Your task to perform on an android device: Open Chrome and go to settings Image 0: 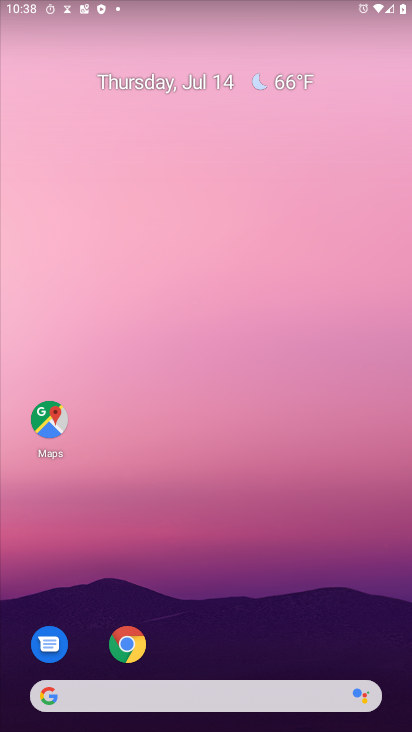
Step 0: press back button
Your task to perform on an android device: Open Chrome and go to settings Image 1: 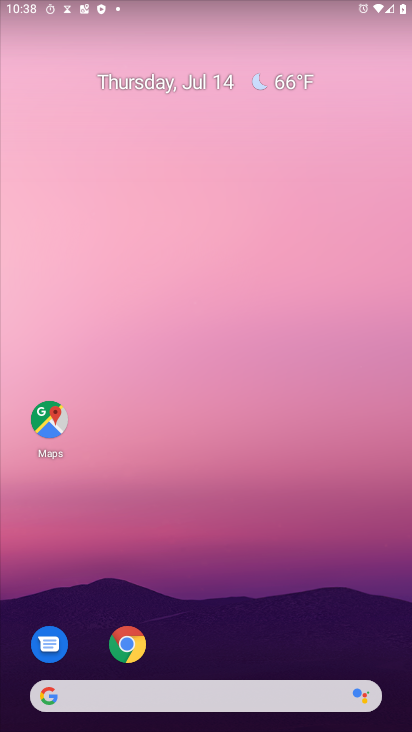
Step 1: drag from (240, 697) to (92, 57)
Your task to perform on an android device: Open Chrome and go to settings Image 2: 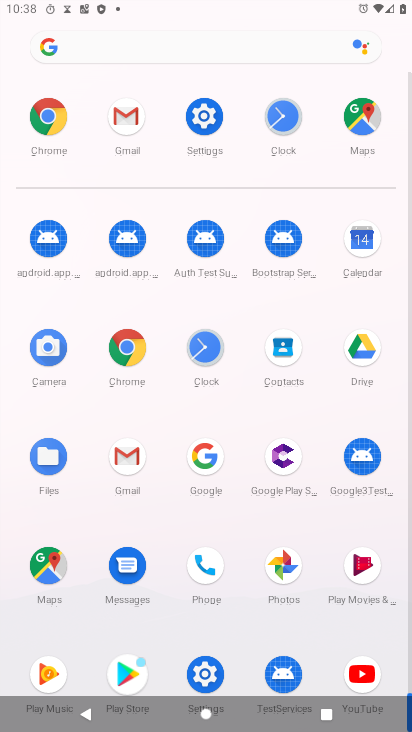
Step 2: click (205, 125)
Your task to perform on an android device: Open Chrome and go to settings Image 3: 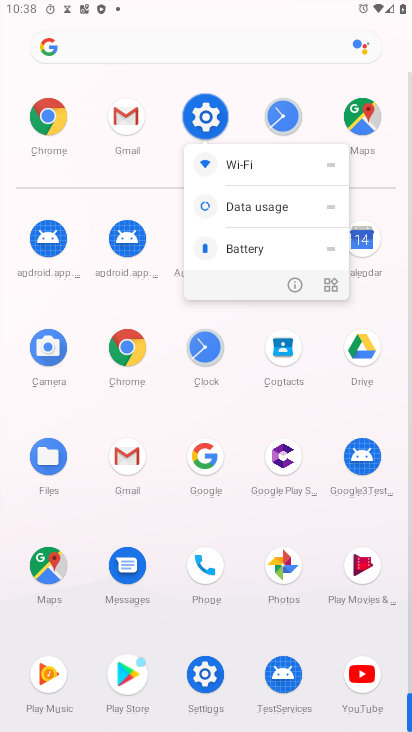
Step 3: click (205, 126)
Your task to perform on an android device: Open Chrome and go to settings Image 4: 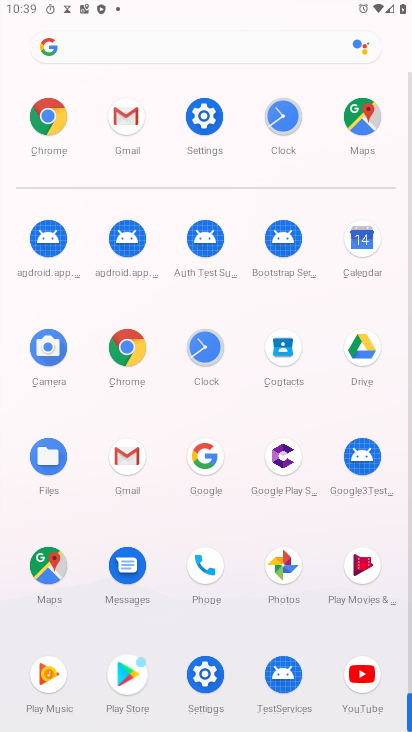
Step 4: click (50, 124)
Your task to perform on an android device: Open Chrome and go to settings Image 5: 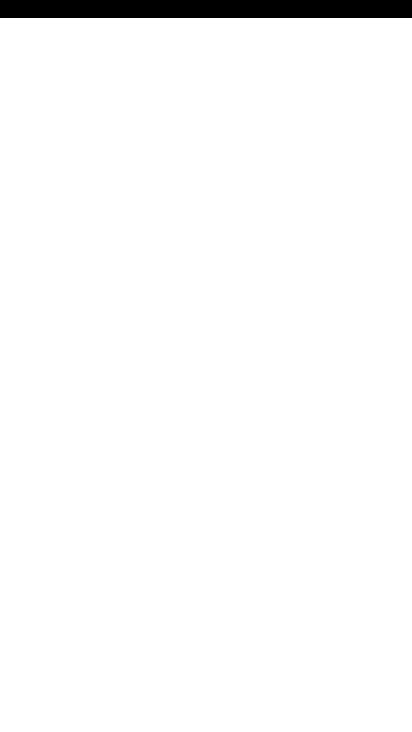
Step 5: click (51, 121)
Your task to perform on an android device: Open Chrome and go to settings Image 6: 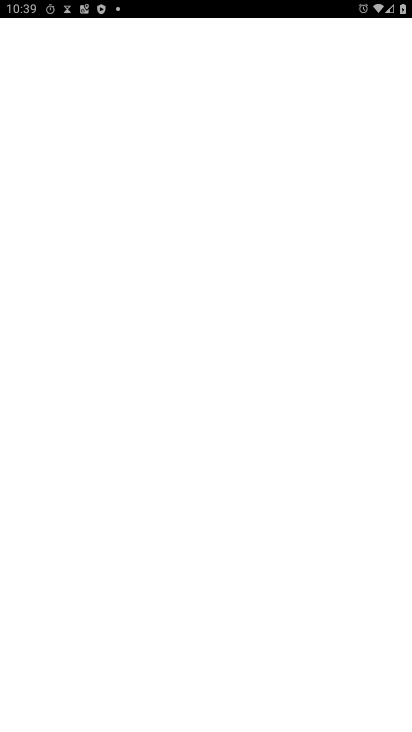
Step 6: click (54, 120)
Your task to perform on an android device: Open Chrome and go to settings Image 7: 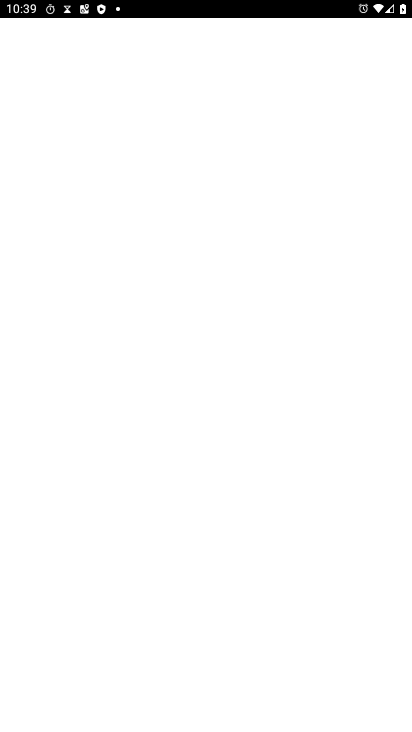
Step 7: click (54, 120)
Your task to perform on an android device: Open Chrome and go to settings Image 8: 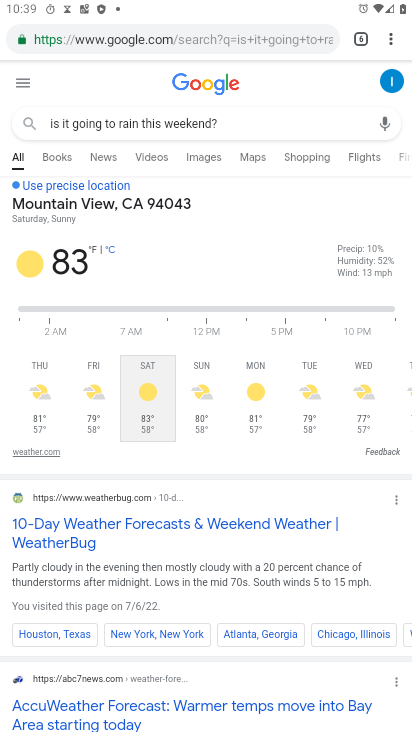
Step 8: drag from (390, 30) to (223, 445)
Your task to perform on an android device: Open Chrome and go to settings Image 9: 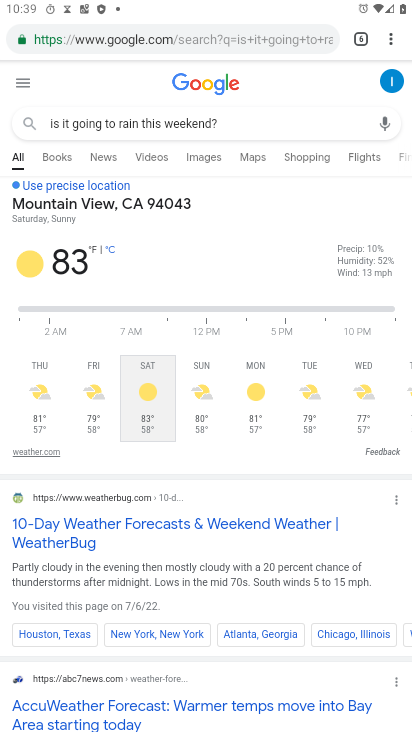
Step 9: click (227, 443)
Your task to perform on an android device: Open Chrome and go to settings Image 10: 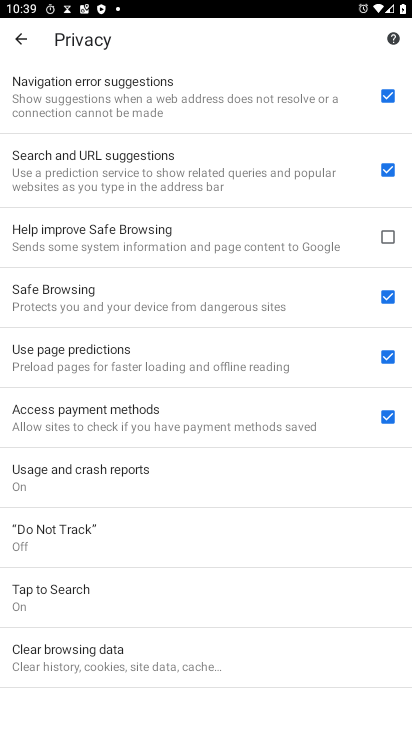
Step 10: task complete